Your task to perform on an android device: Clear the cart on newegg. Image 0: 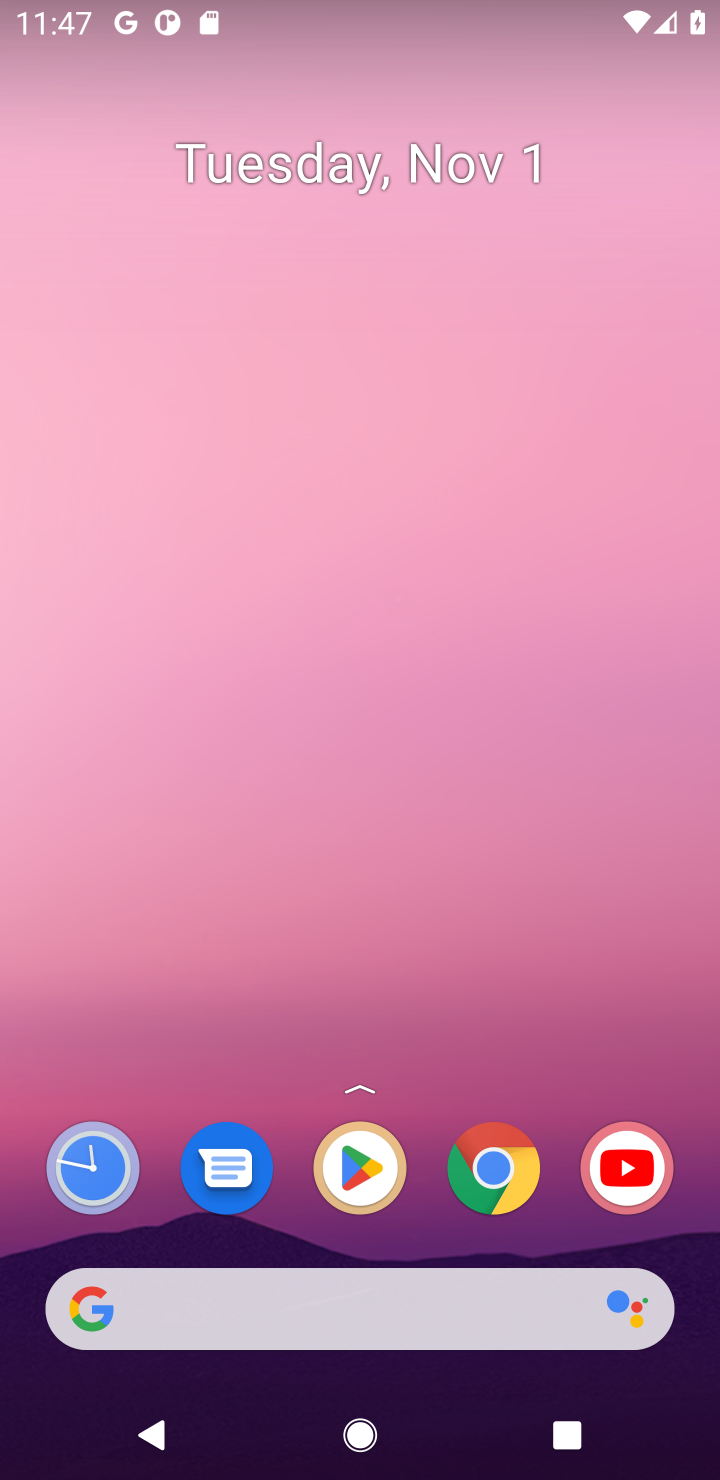
Step 0: press home button
Your task to perform on an android device: Clear the cart on newegg. Image 1: 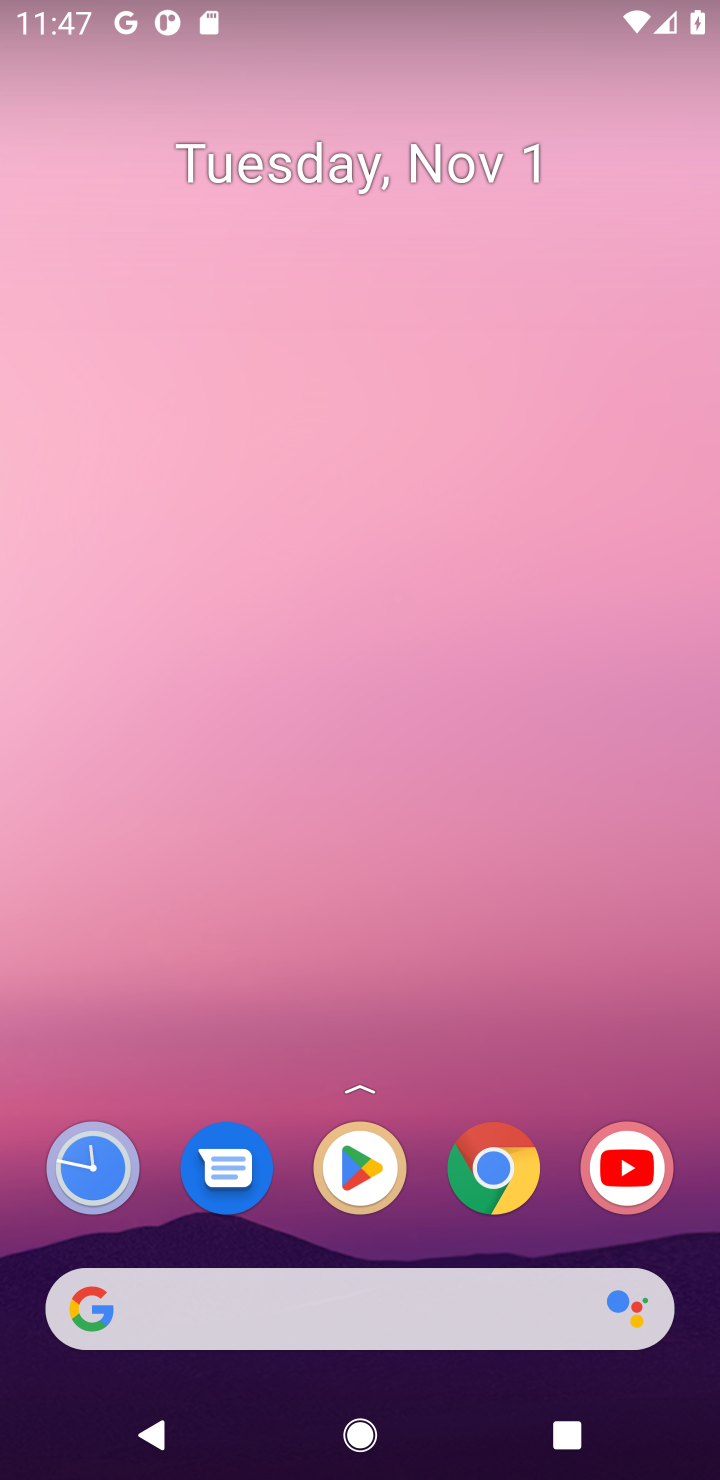
Step 1: click (502, 1173)
Your task to perform on an android device: Clear the cart on newegg. Image 2: 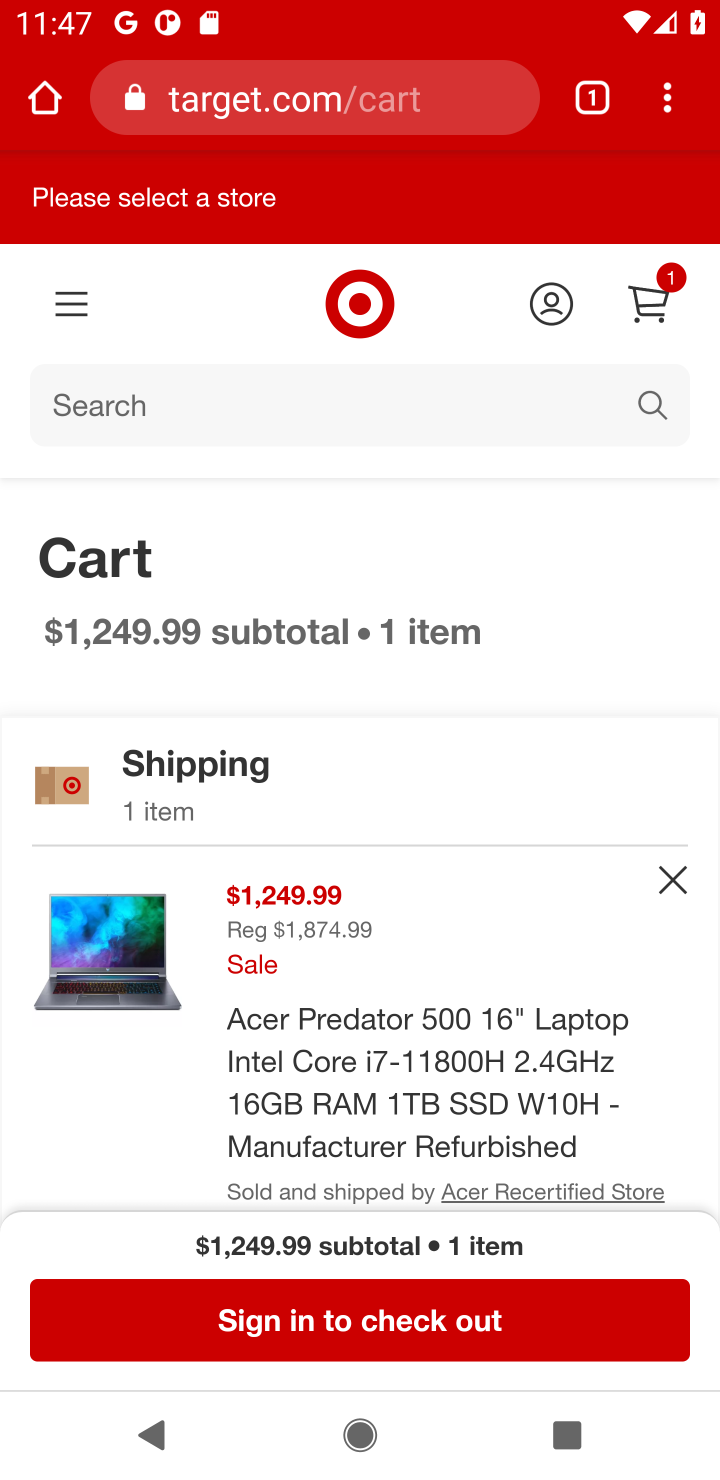
Step 2: click (424, 106)
Your task to perform on an android device: Clear the cart on newegg. Image 3: 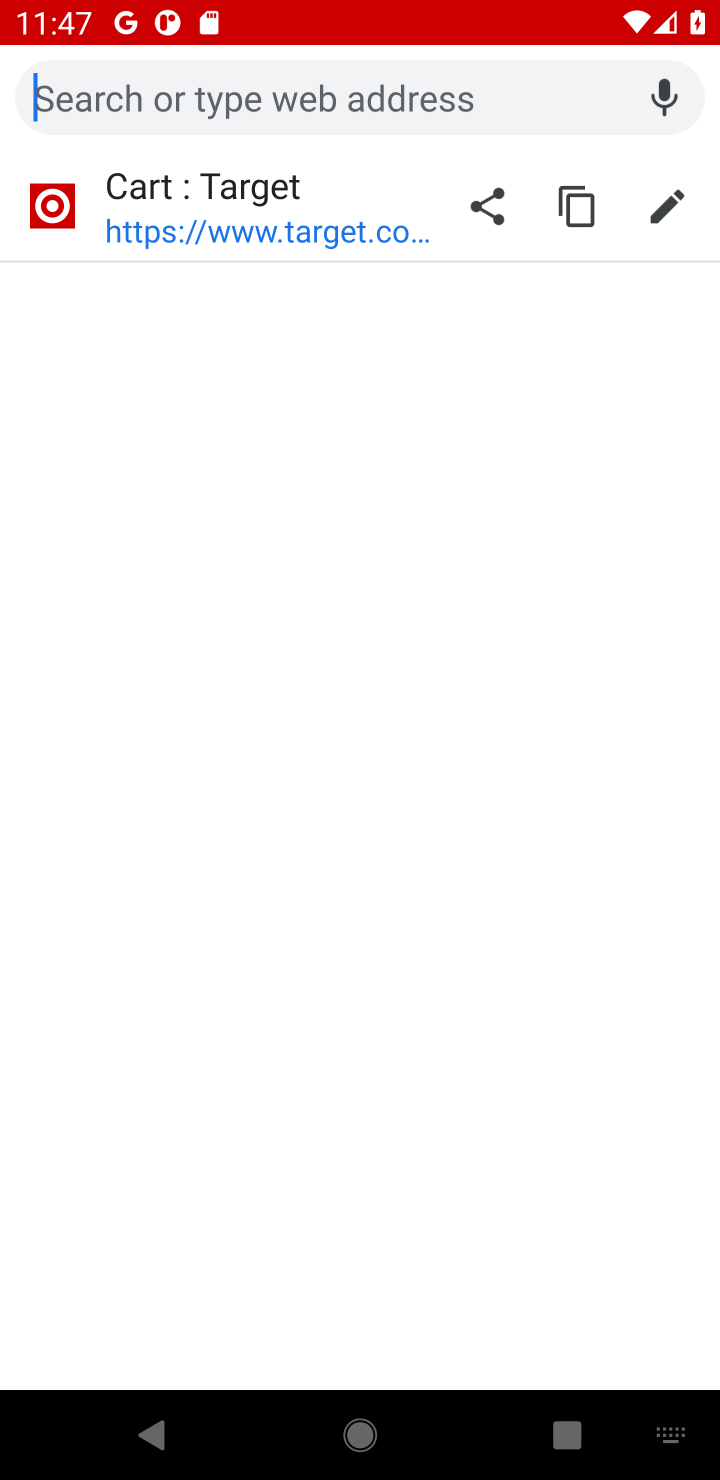
Step 3: type "newegg"
Your task to perform on an android device: Clear the cart on newegg. Image 4: 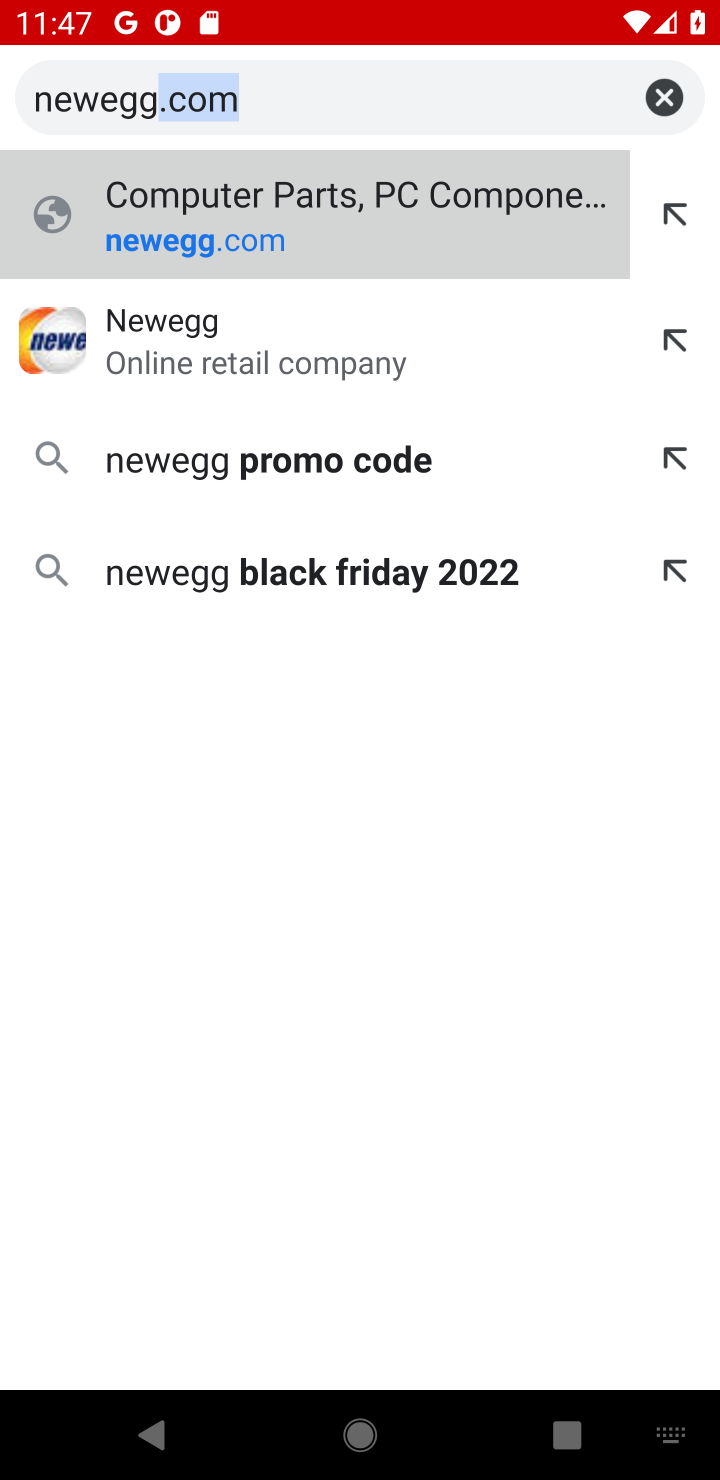
Step 4: click (358, 371)
Your task to perform on an android device: Clear the cart on newegg. Image 5: 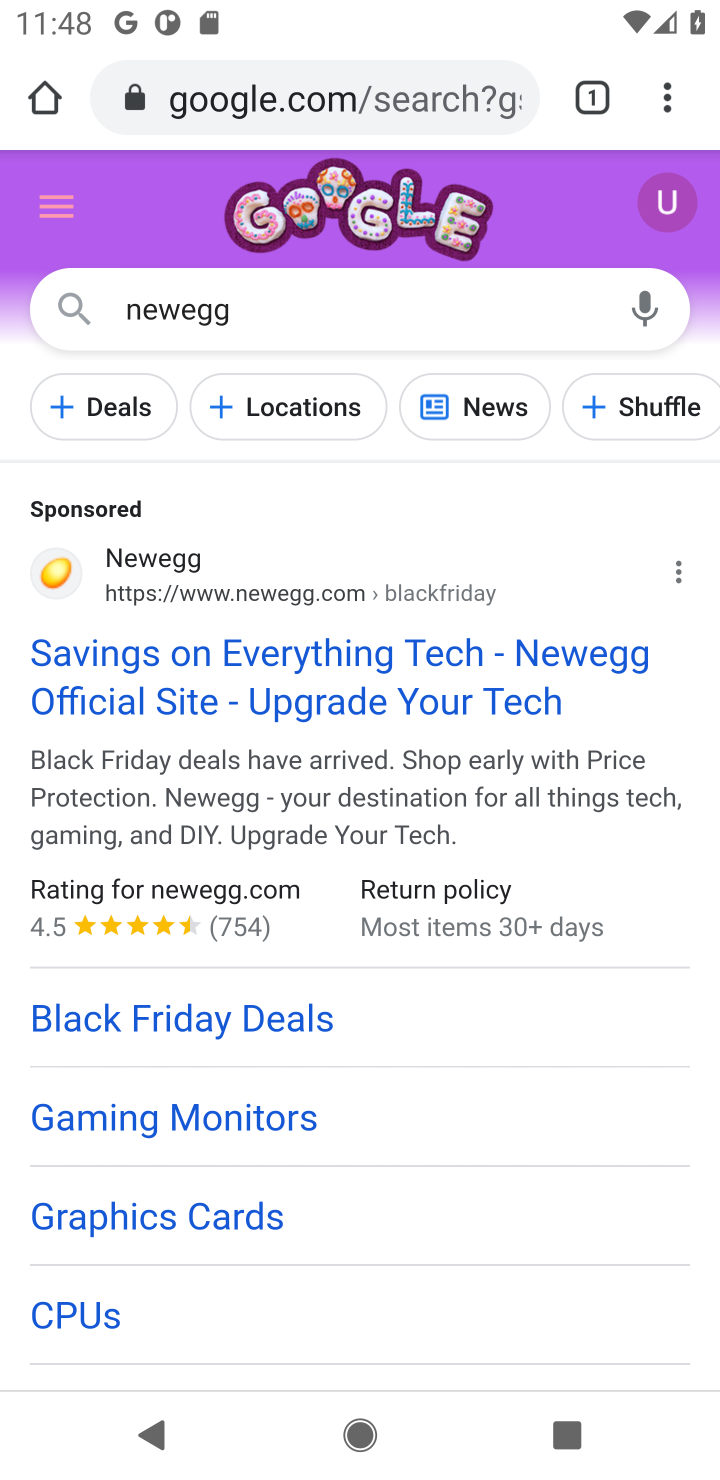
Step 5: drag from (411, 1301) to (472, 512)
Your task to perform on an android device: Clear the cart on newegg. Image 6: 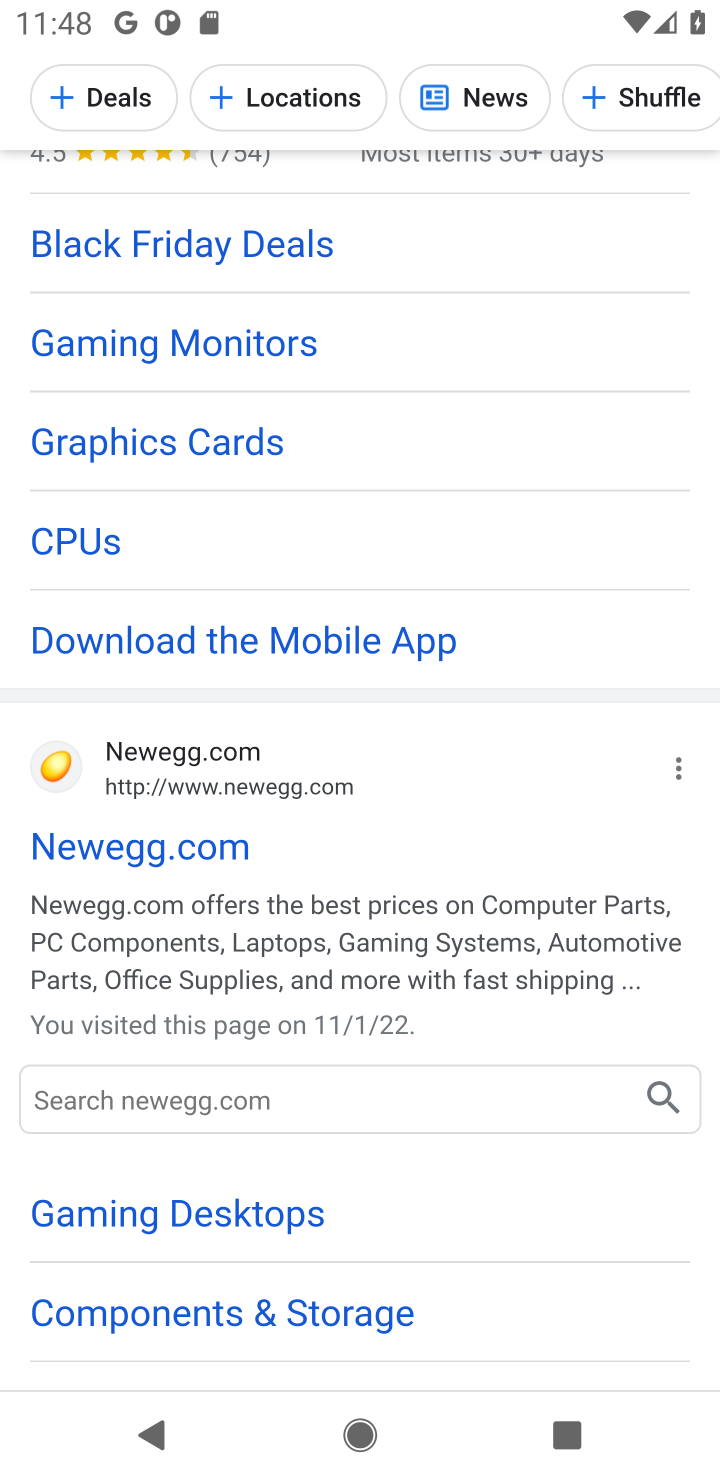
Step 6: click (264, 855)
Your task to perform on an android device: Clear the cart on newegg. Image 7: 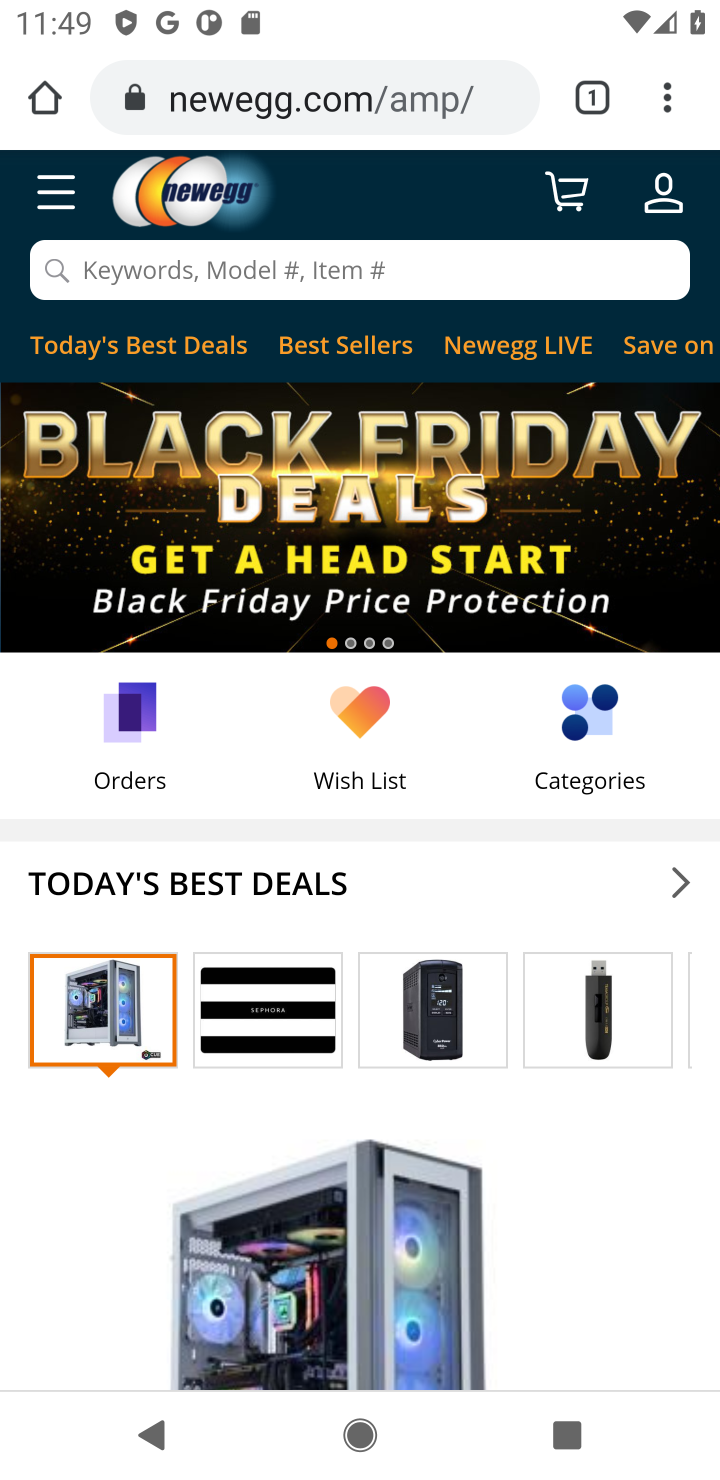
Step 7: click (566, 192)
Your task to perform on an android device: Clear the cart on newegg. Image 8: 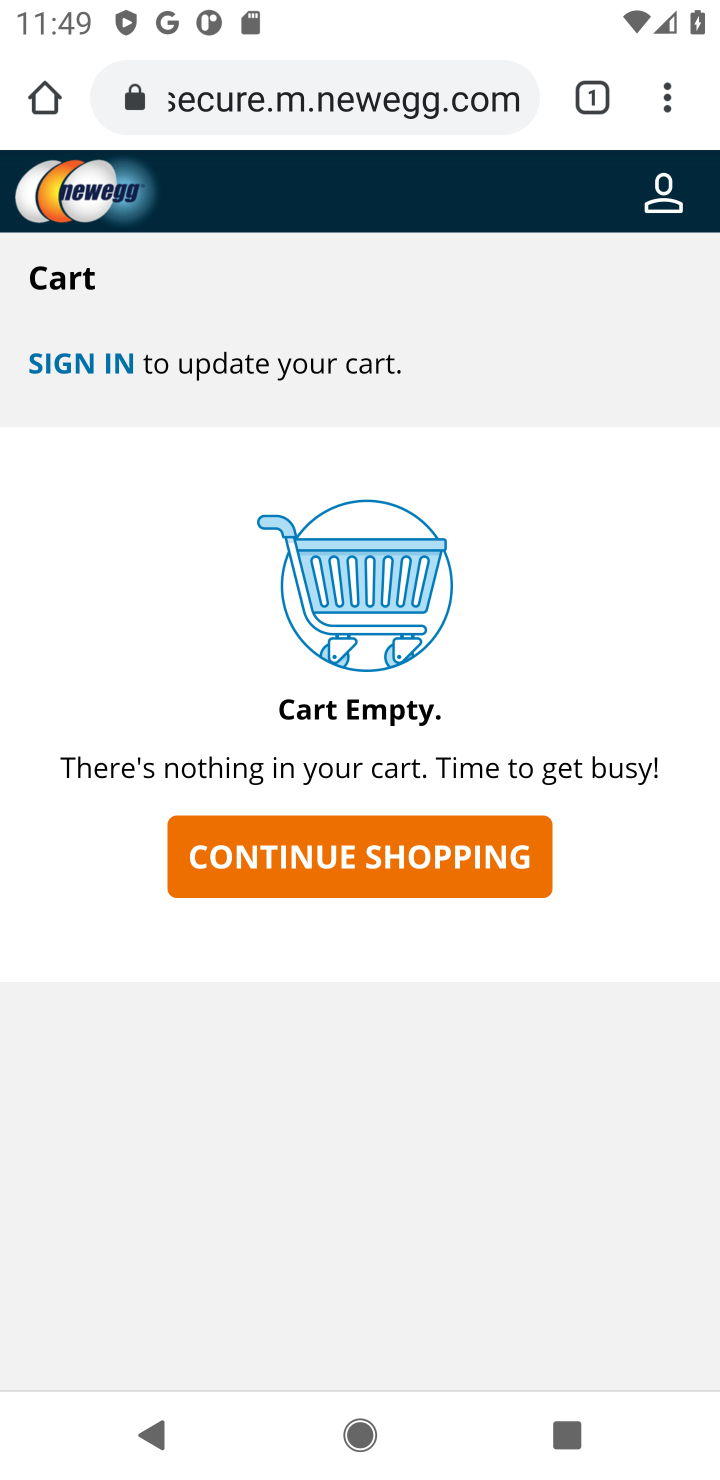
Step 8: task complete